Your task to perform on an android device: delete the emails in spam in the gmail app Image 0: 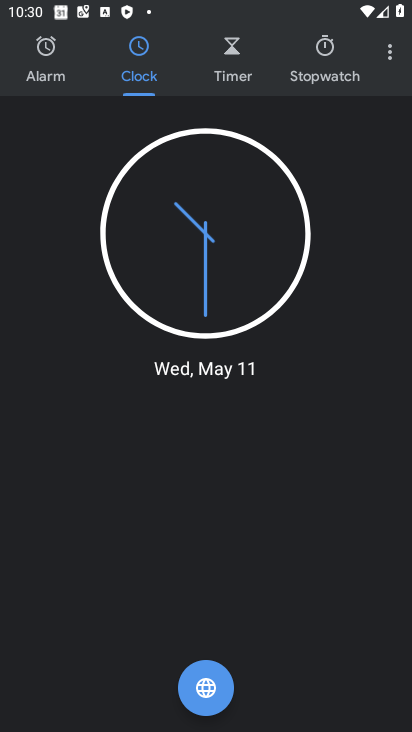
Step 0: press home button
Your task to perform on an android device: delete the emails in spam in the gmail app Image 1: 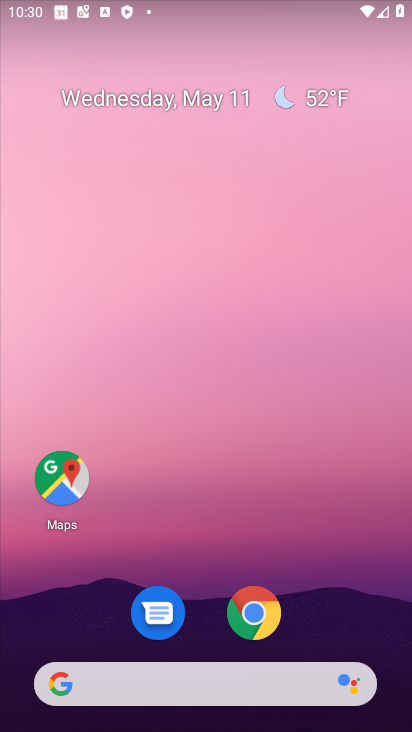
Step 1: drag from (265, 540) to (229, 138)
Your task to perform on an android device: delete the emails in spam in the gmail app Image 2: 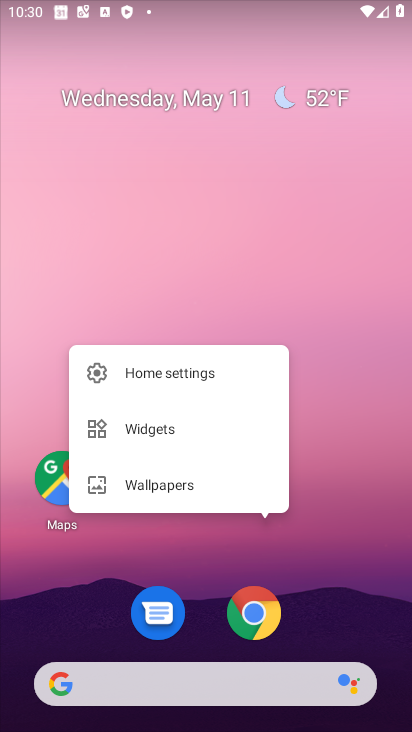
Step 2: click (348, 469)
Your task to perform on an android device: delete the emails in spam in the gmail app Image 3: 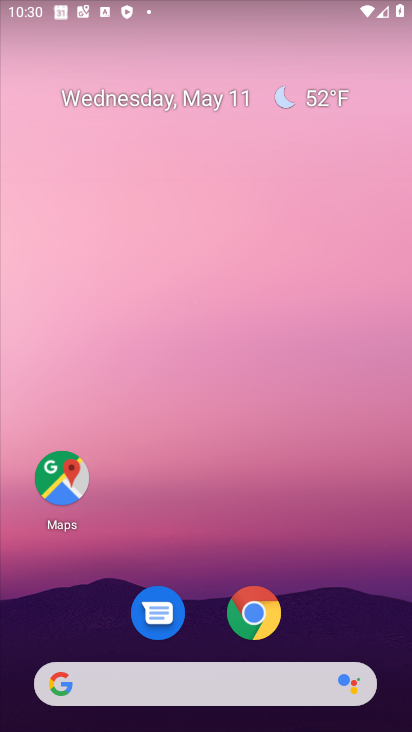
Step 3: drag from (209, 579) to (173, 130)
Your task to perform on an android device: delete the emails in spam in the gmail app Image 4: 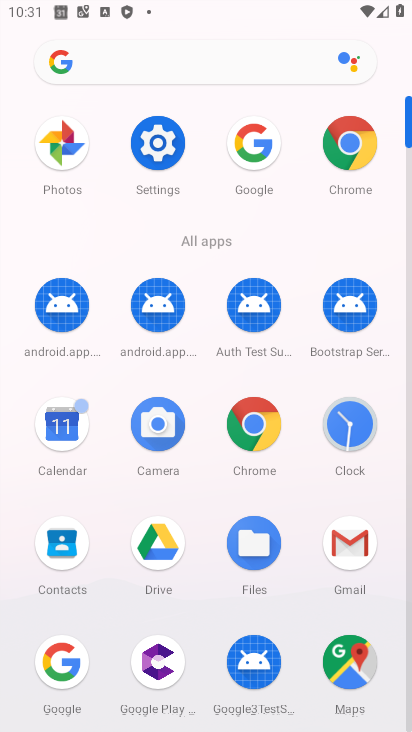
Step 4: click (362, 553)
Your task to perform on an android device: delete the emails in spam in the gmail app Image 5: 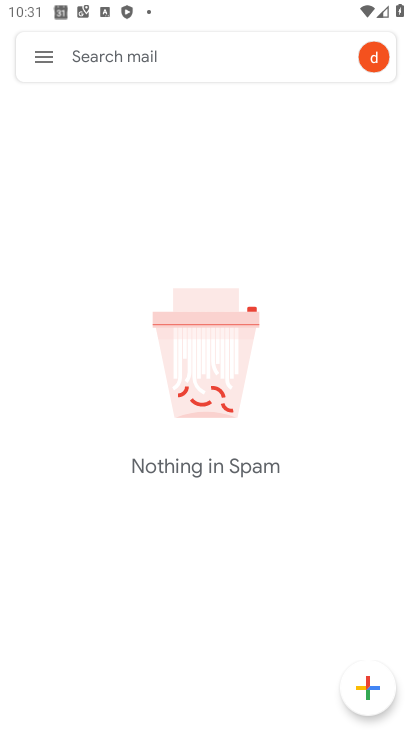
Step 5: click (38, 54)
Your task to perform on an android device: delete the emails in spam in the gmail app Image 6: 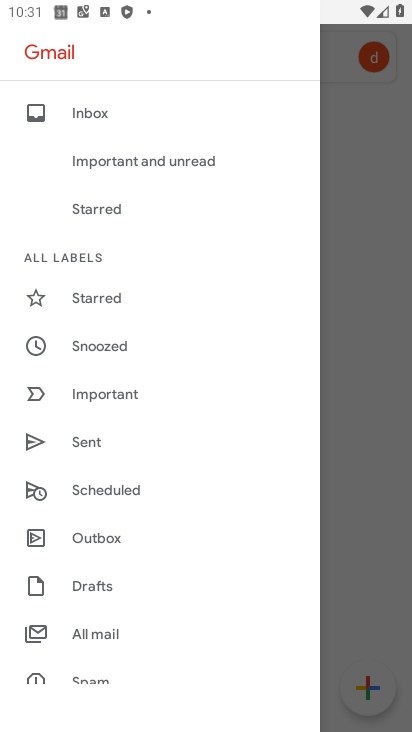
Step 6: drag from (140, 638) to (134, 440)
Your task to perform on an android device: delete the emails in spam in the gmail app Image 7: 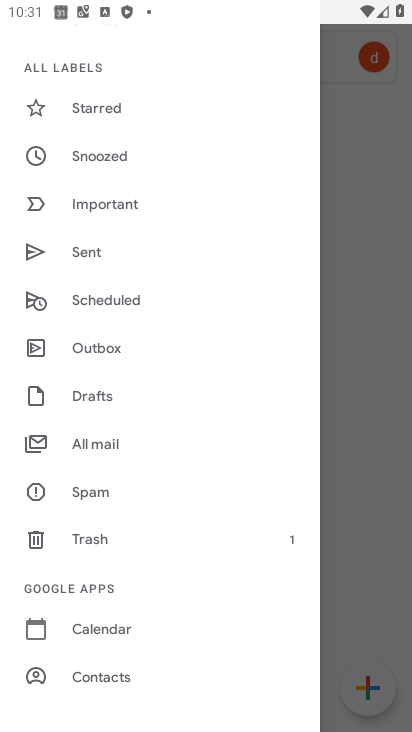
Step 7: click (111, 503)
Your task to perform on an android device: delete the emails in spam in the gmail app Image 8: 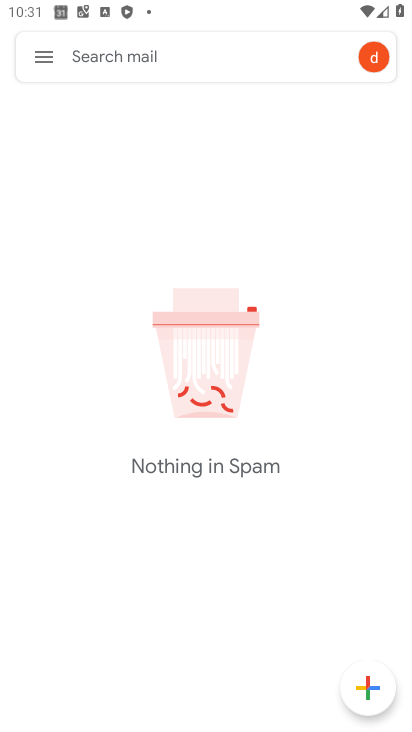
Step 8: task complete